Your task to perform on an android device: remove spam from my inbox in the gmail app Image 0: 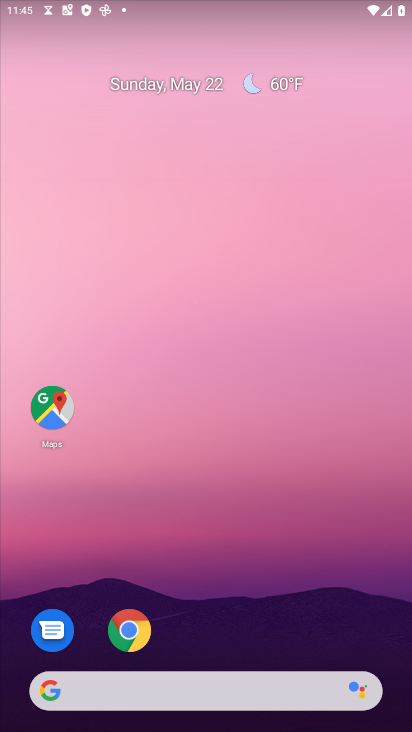
Step 0: drag from (286, 611) to (217, 186)
Your task to perform on an android device: remove spam from my inbox in the gmail app Image 1: 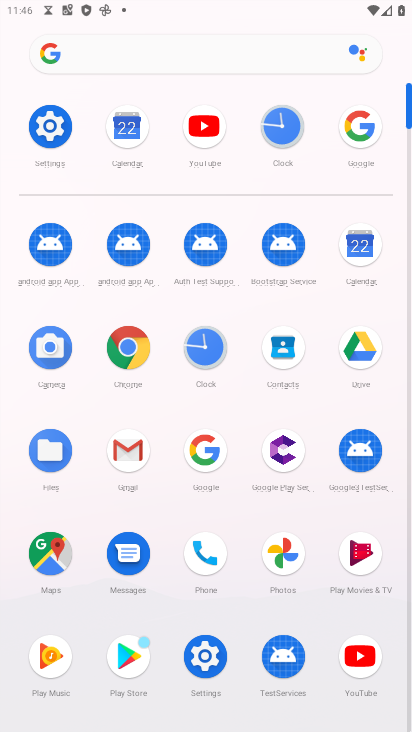
Step 1: click (127, 447)
Your task to perform on an android device: remove spam from my inbox in the gmail app Image 2: 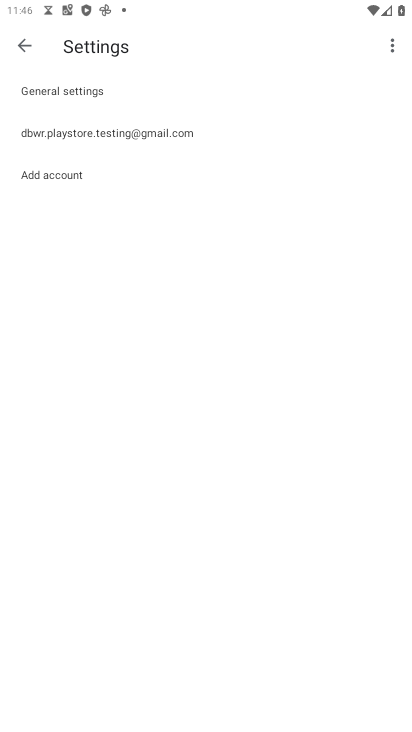
Step 2: click (18, 46)
Your task to perform on an android device: remove spam from my inbox in the gmail app Image 3: 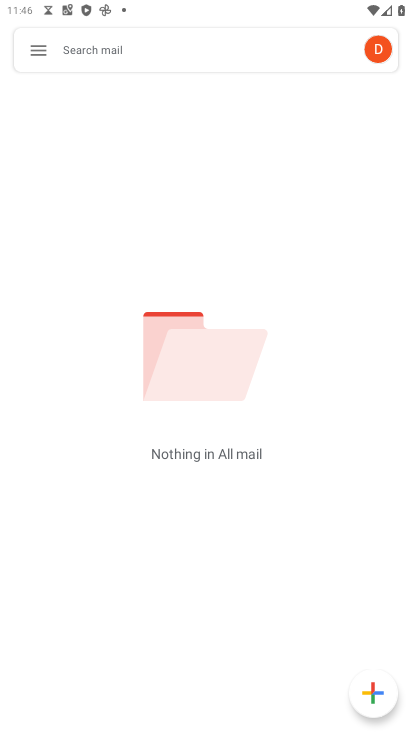
Step 3: click (36, 49)
Your task to perform on an android device: remove spam from my inbox in the gmail app Image 4: 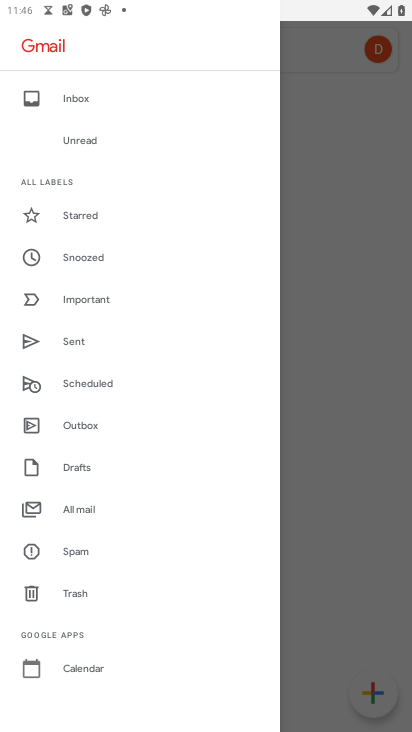
Step 4: click (71, 551)
Your task to perform on an android device: remove spam from my inbox in the gmail app Image 5: 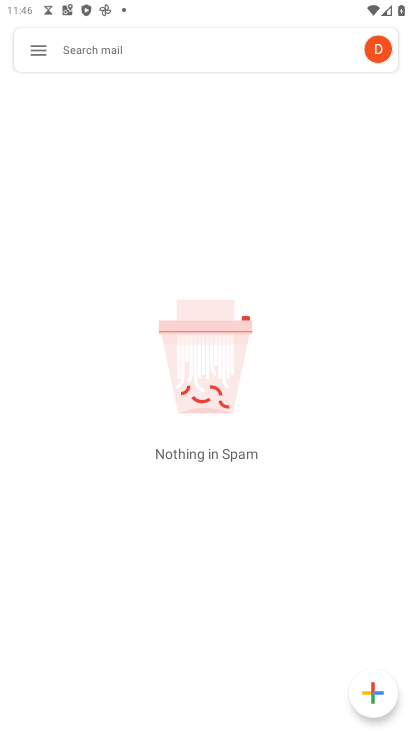
Step 5: task complete